Your task to perform on an android device: open a new tab in the chrome app Image 0: 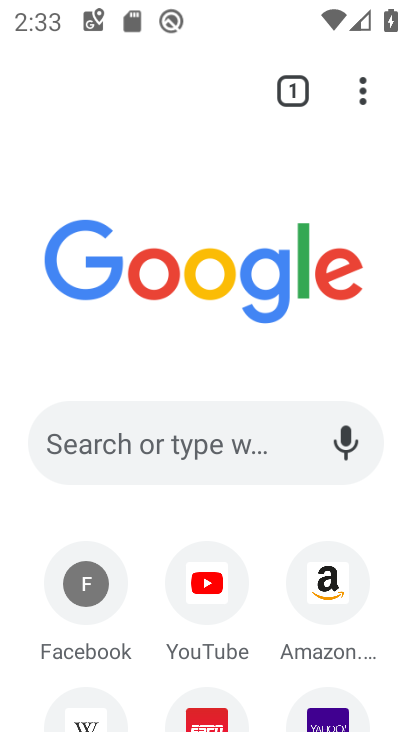
Step 0: drag from (362, 91) to (49, 170)
Your task to perform on an android device: open a new tab in the chrome app Image 1: 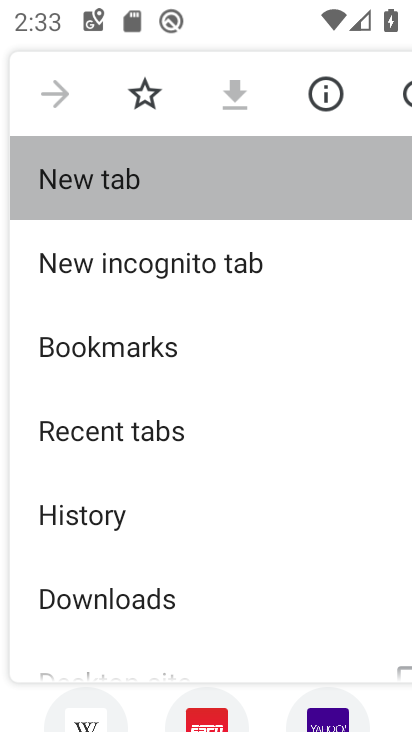
Step 1: click (49, 170)
Your task to perform on an android device: open a new tab in the chrome app Image 2: 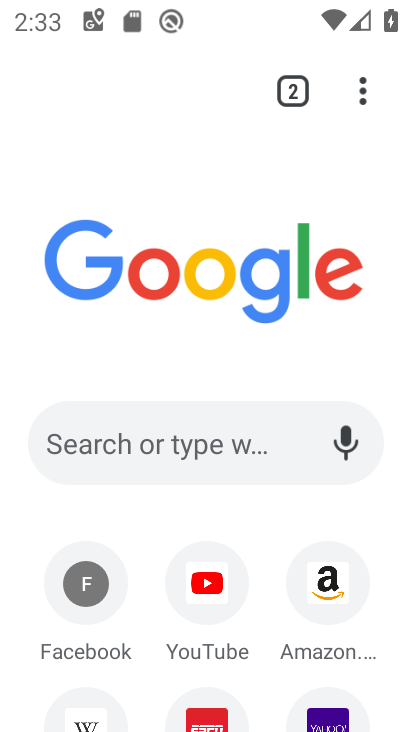
Step 2: task complete